Your task to perform on an android device: Open network settings Image 0: 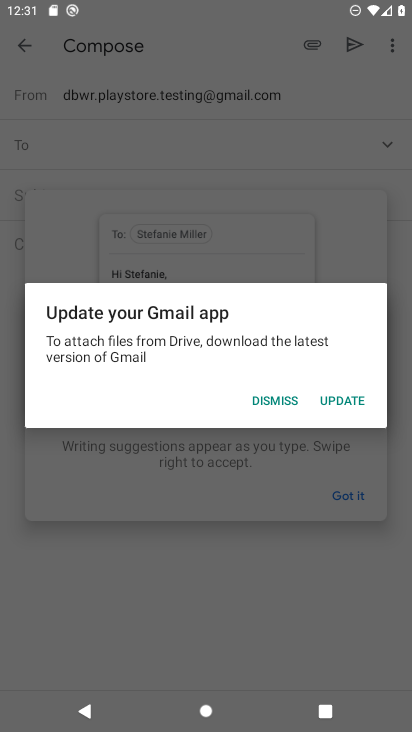
Step 0: press home button
Your task to perform on an android device: Open network settings Image 1: 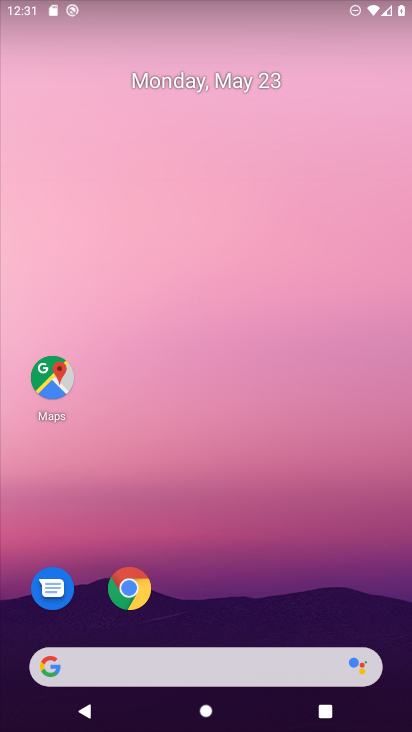
Step 1: drag from (190, 625) to (190, 381)
Your task to perform on an android device: Open network settings Image 2: 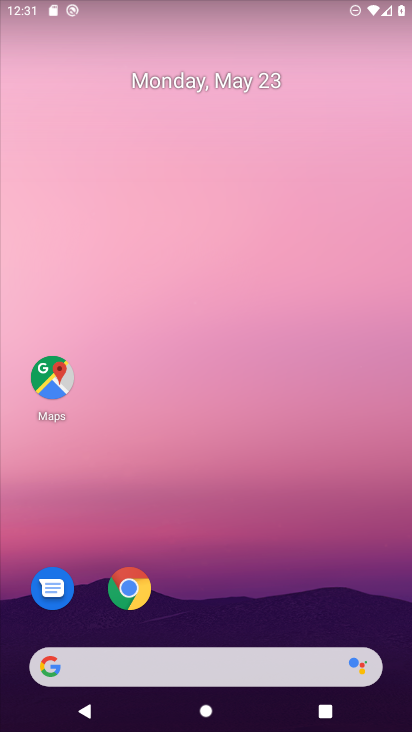
Step 2: drag from (227, 642) to (303, 136)
Your task to perform on an android device: Open network settings Image 3: 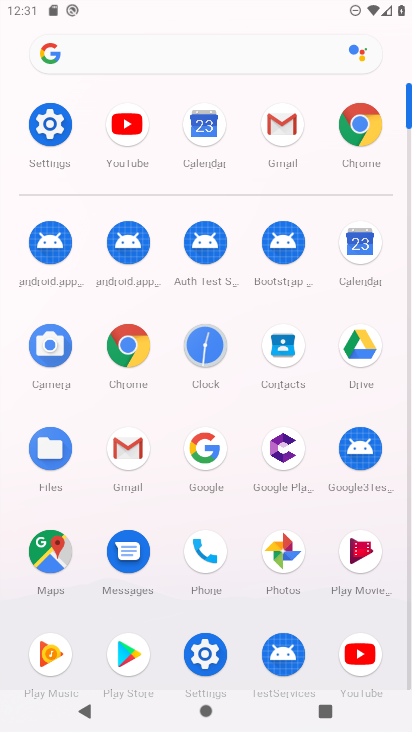
Step 3: click (48, 126)
Your task to perform on an android device: Open network settings Image 4: 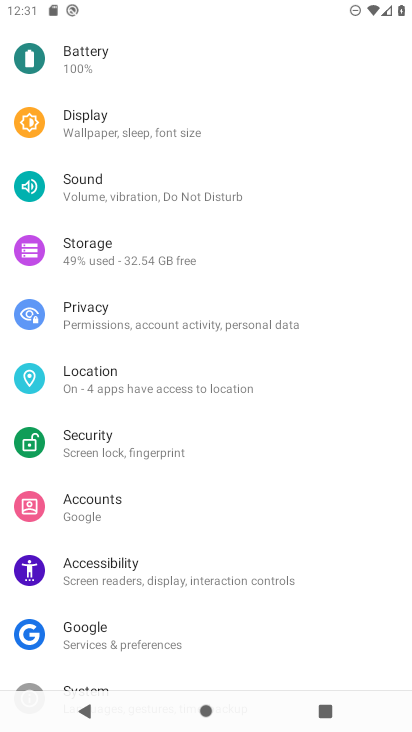
Step 4: drag from (186, 74) to (162, 533)
Your task to perform on an android device: Open network settings Image 5: 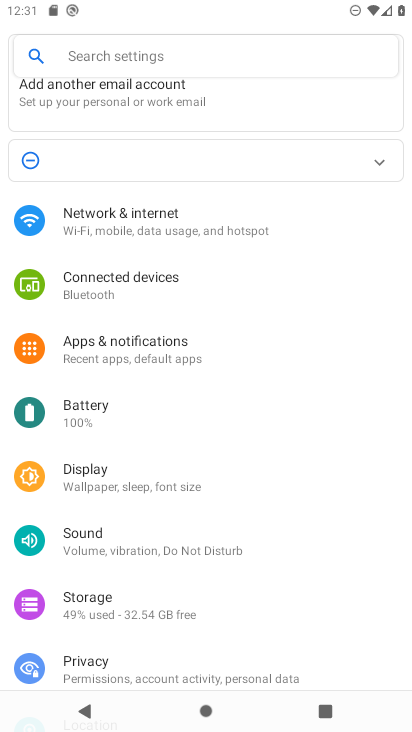
Step 5: click (140, 222)
Your task to perform on an android device: Open network settings Image 6: 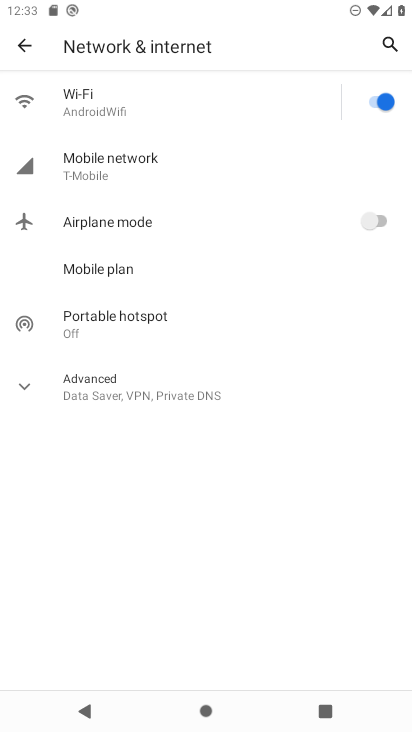
Step 6: click (144, 166)
Your task to perform on an android device: Open network settings Image 7: 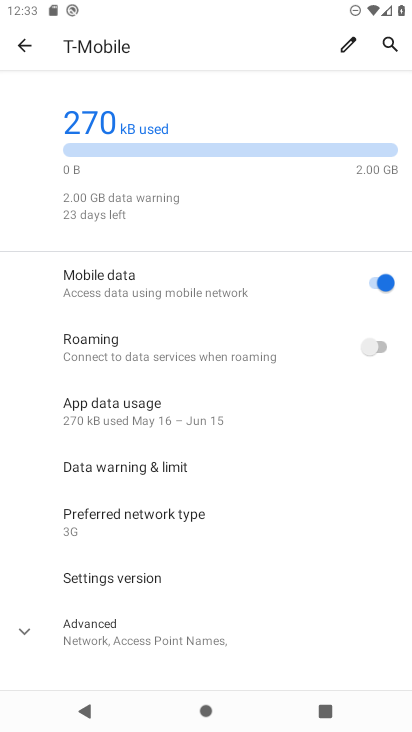
Step 7: task complete